Your task to perform on an android device: turn notification dots off Image 0: 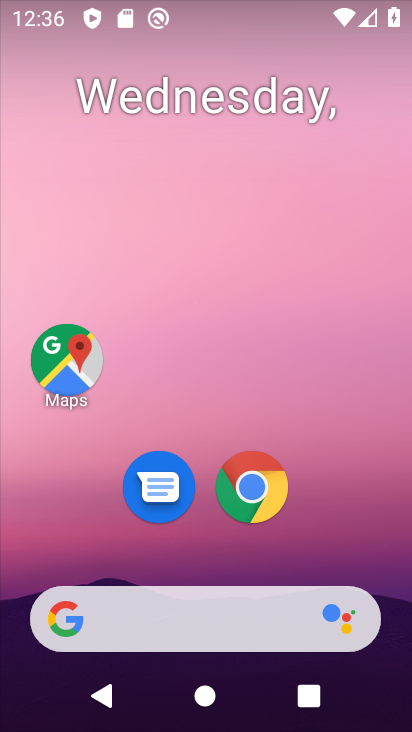
Step 0: drag from (195, 554) to (203, 0)
Your task to perform on an android device: turn notification dots off Image 1: 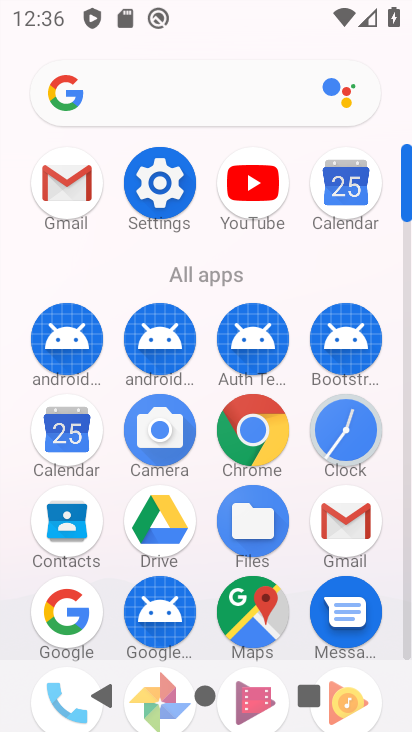
Step 1: click (160, 187)
Your task to perform on an android device: turn notification dots off Image 2: 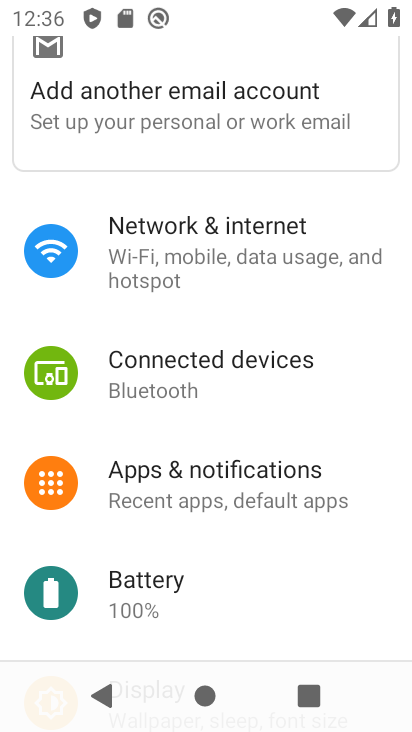
Step 2: click (181, 494)
Your task to perform on an android device: turn notification dots off Image 3: 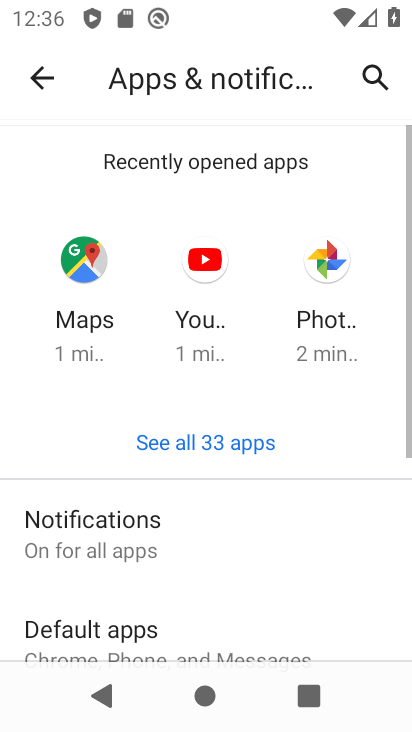
Step 3: click (144, 538)
Your task to perform on an android device: turn notification dots off Image 4: 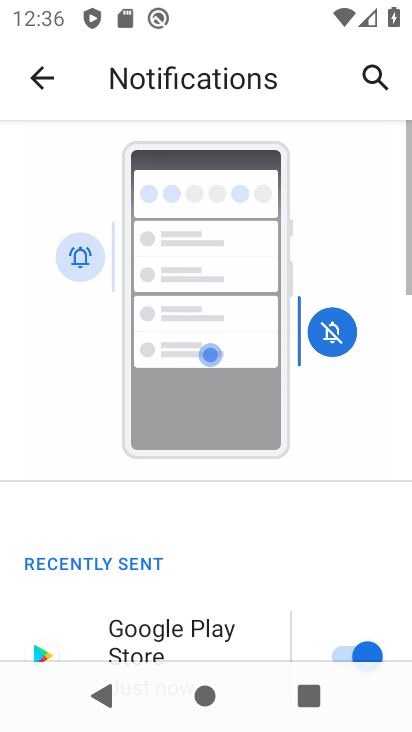
Step 4: drag from (178, 567) to (246, 166)
Your task to perform on an android device: turn notification dots off Image 5: 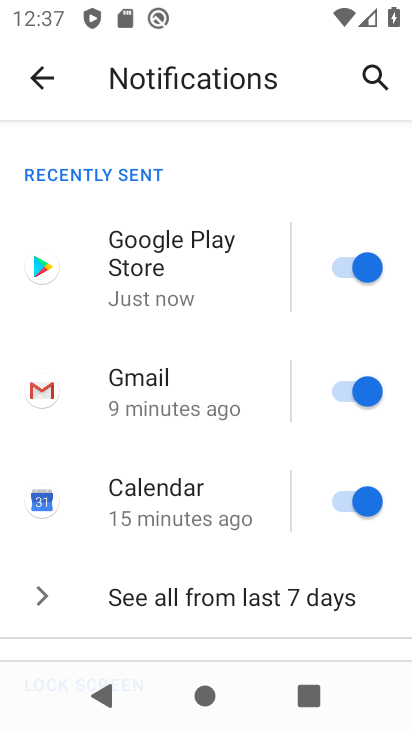
Step 5: drag from (211, 561) to (236, 252)
Your task to perform on an android device: turn notification dots off Image 6: 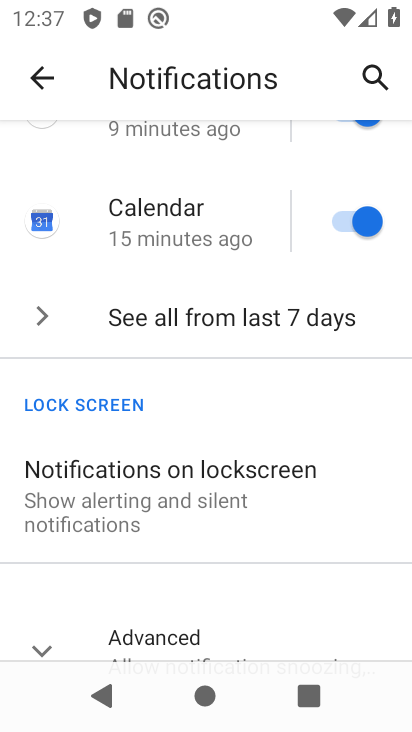
Step 6: drag from (176, 600) to (176, 292)
Your task to perform on an android device: turn notification dots off Image 7: 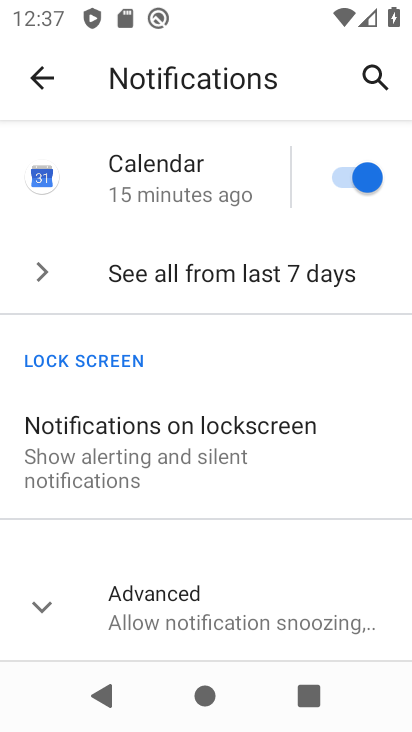
Step 7: click (135, 596)
Your task to perform on an android device: turn notification dots off Image 8: 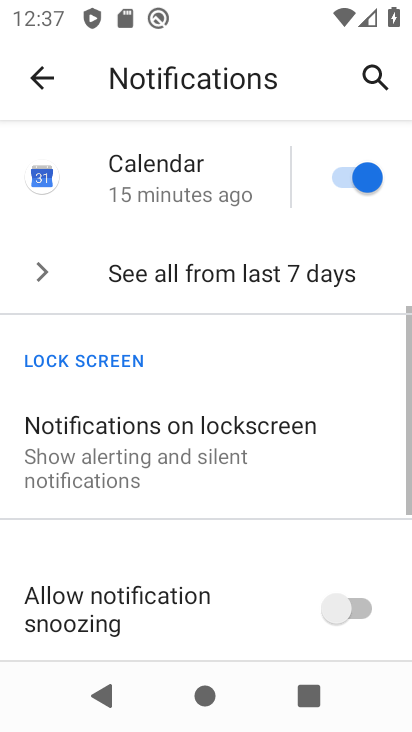
Step 8: drag from (160, 633) to (231, 259)
Your task to perform on an android device: turn notification dots off Image 9: 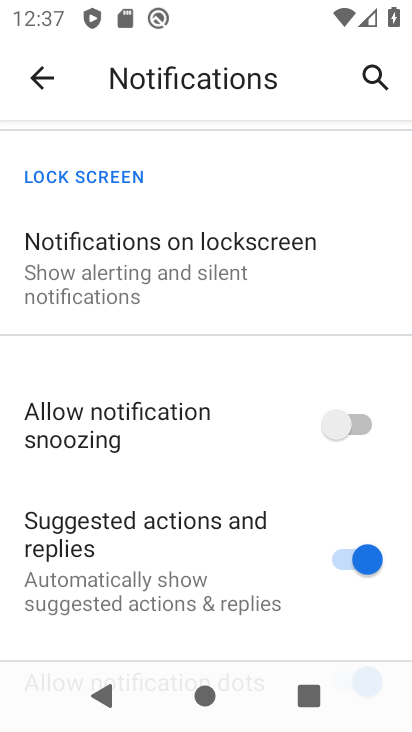
Step 9: drag from (201, 565) to (232, 321)
Your task to perform on an android device: turn notification dots off Image 10: 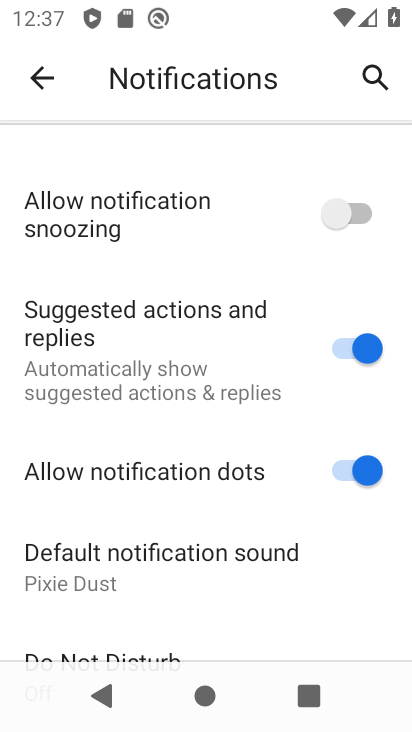
Step 10: drag from (221, 597) to (248, 331)
Your task to perform on an android device: turn notification dots off Image 11: 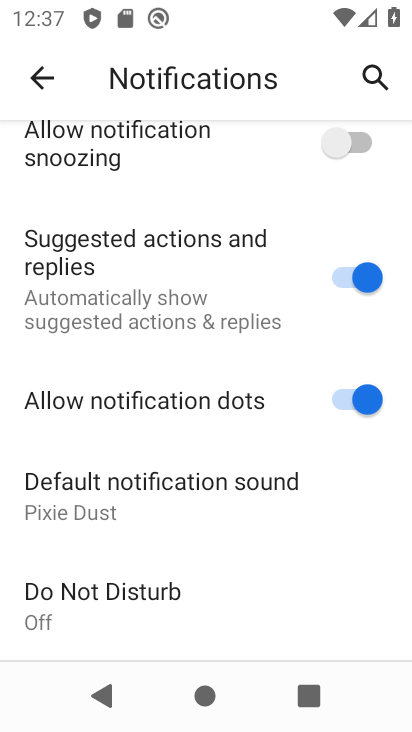
Step 11: click (345, 395)
Your task to perform on an android device: turn notification dots off Image 12: 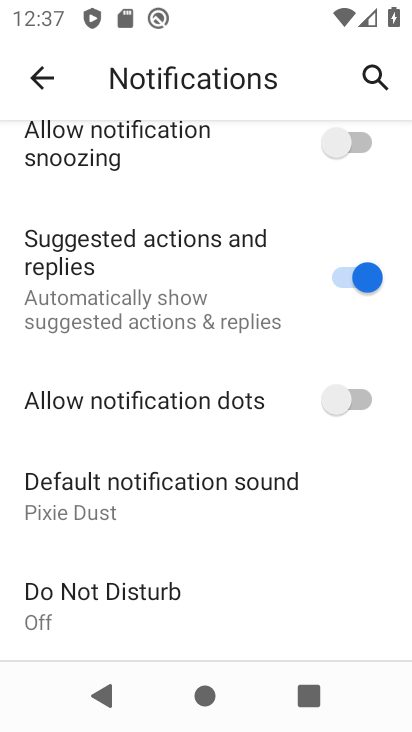
Step 12: task complete